Your task to perform on an android device: Open the map Image 0: 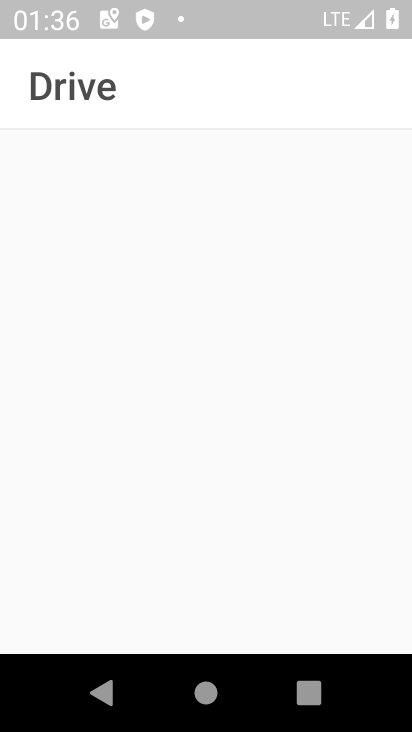
Step 0: press home button
Your task to perform on an android device: Open the map Image 1: 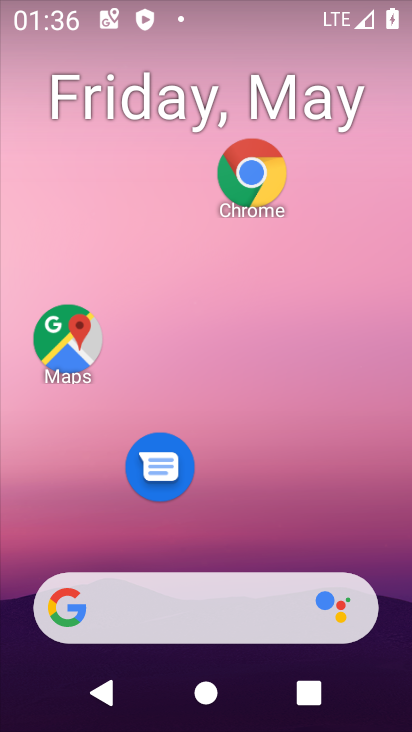
Step 1: drag from (254, 635) to (195, 146)
Your task to perform on an android device: Open the map Image 2: 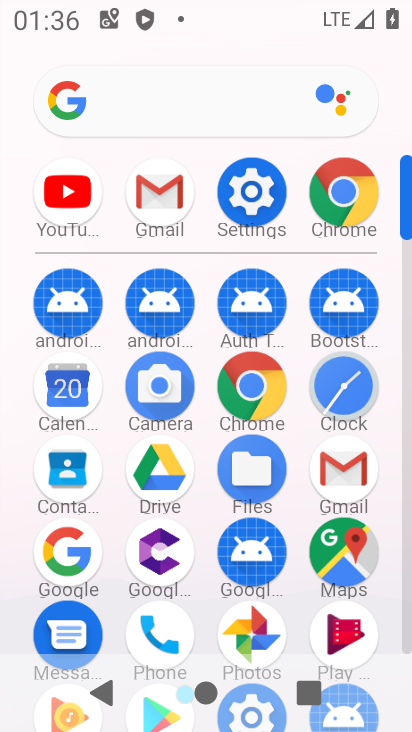
Step 2: click (328, 556)
Your task to perform on an android device: Open the map Image 3: 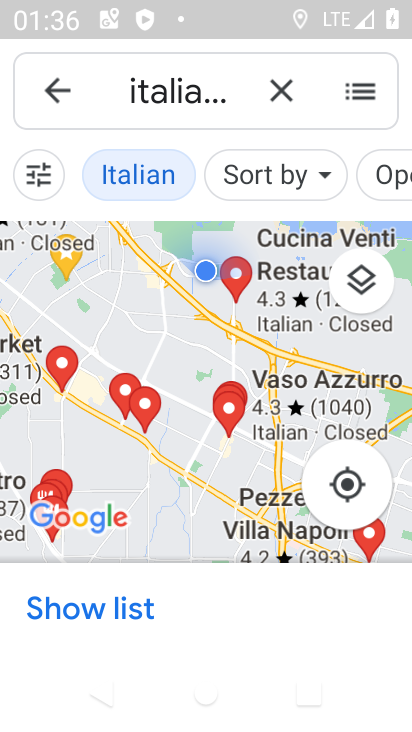
Step 3: click (47, 88)
Your task to perform on an android device: Open the map Image 4: 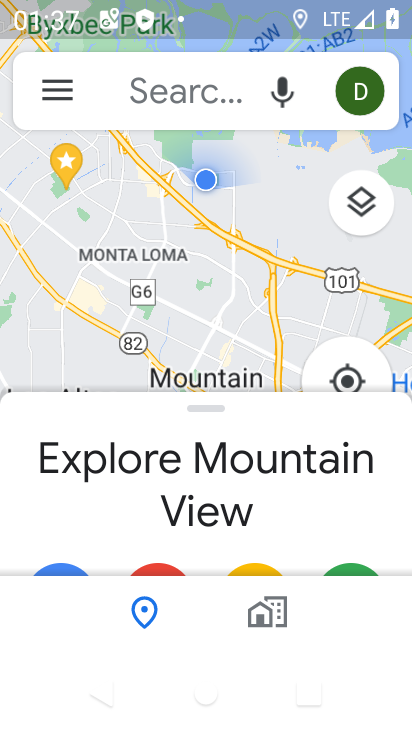
Step 4: click (239, 322)
Your task to perform on an android device: Open the map Image 5: 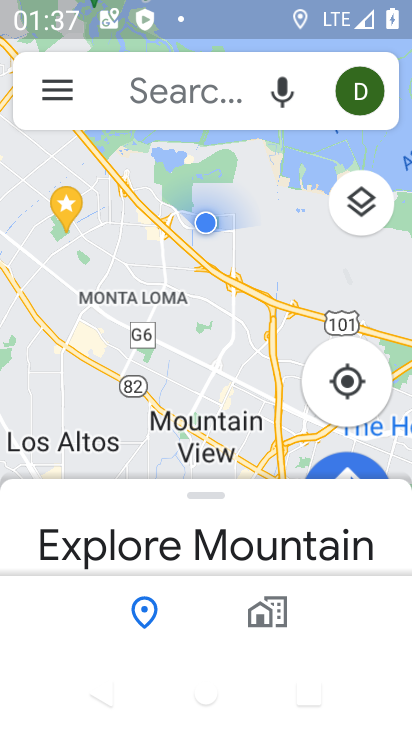
Step 5: task complete